Your task to perform on an android device: Open Google Chrome Image 0: 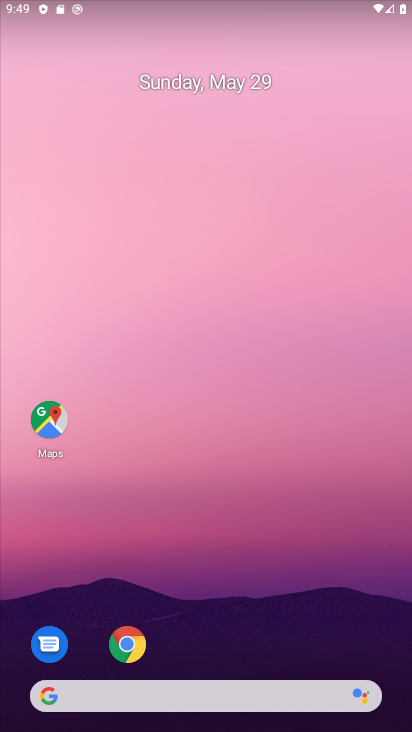
Step 0: click (128, 665)
Your task to perform on an android device: Open Google Chrome Image 1: 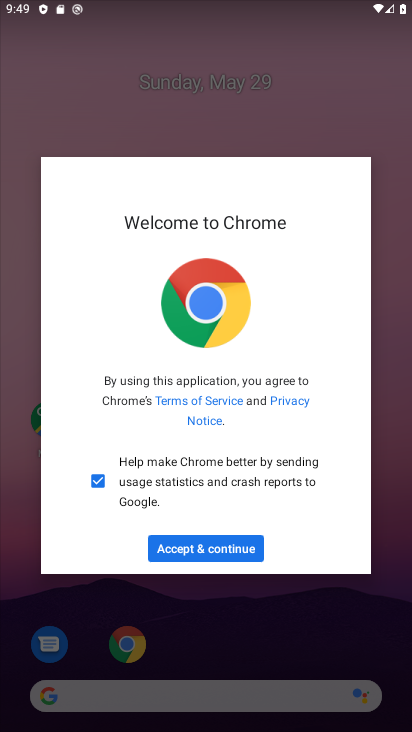
Step 1: click (239, 555)
Your task to perform on an android device: Open Google Chrome Image 2: 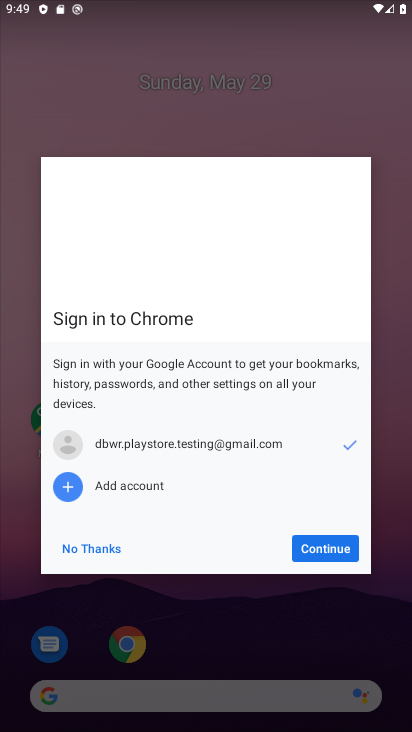
Step 2: click (323, 554)
Your task to perform on an android device: Open Google Chrome Image 3: 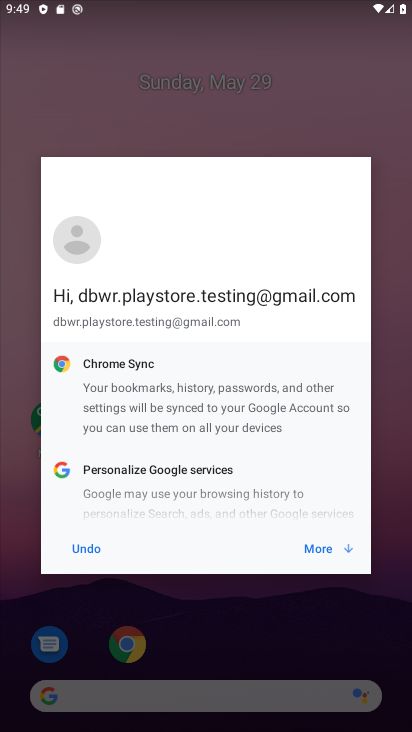
Step 3: click (324, 553)
Your task to perform on an android device: Open Google Chrome Image 4: 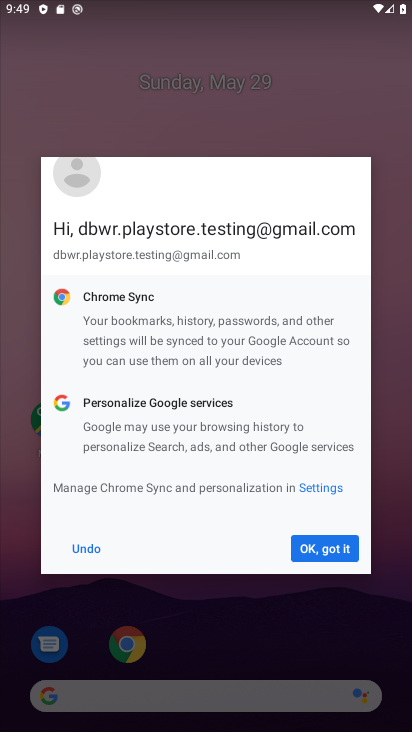
Step 4: click (324, 553)
Your task to perform on an android device: Open Google Chrome Image 5: 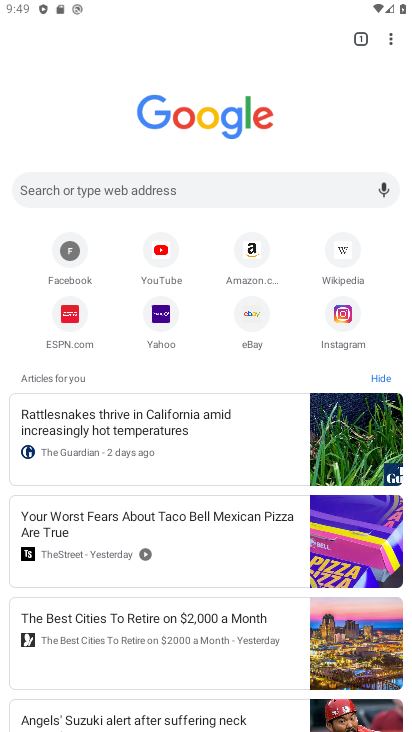
Step 5: task complete